Your task to perform on an android device: see creations saved in the google photos Image 0: 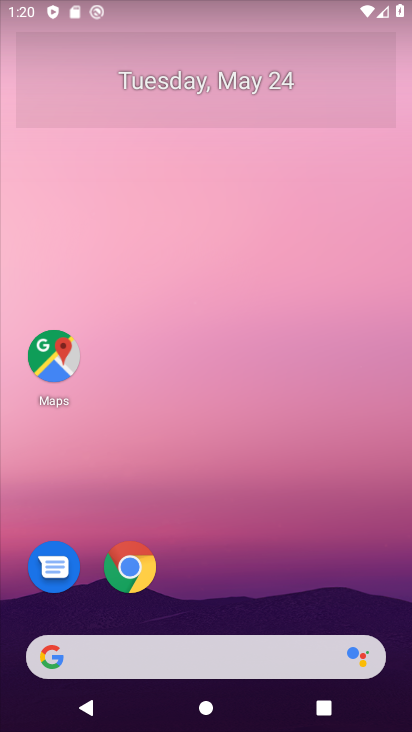
Step 0: drag from (201, 587) to (269, 118)
Your task to perform on an android device: see creations saved in the google photos Image 1: 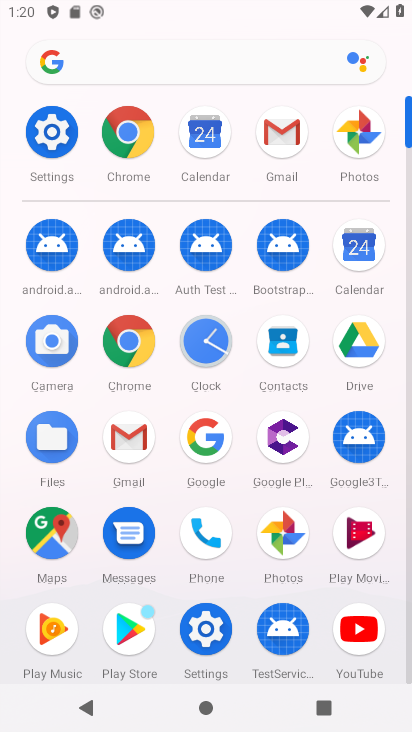
Step 1: click (280, 548)
Your task to perform on an android device: see creations saved in the google photos Image 2: 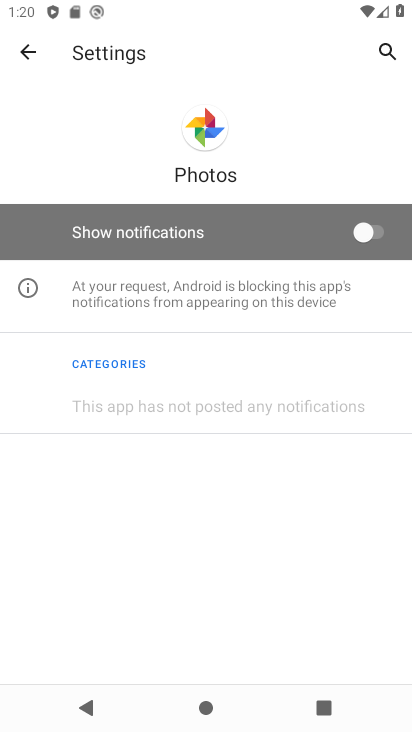
Step 2: click (24, 52)
Your task to perform on an android device: see creations saved in the google photos Image 3: 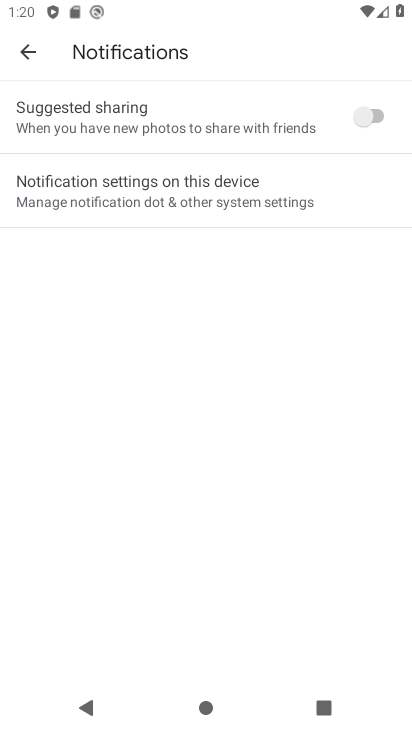
Step 3: click (32, 54)
Your task to perform on an android device: see creations saved in the google photos Image 4: 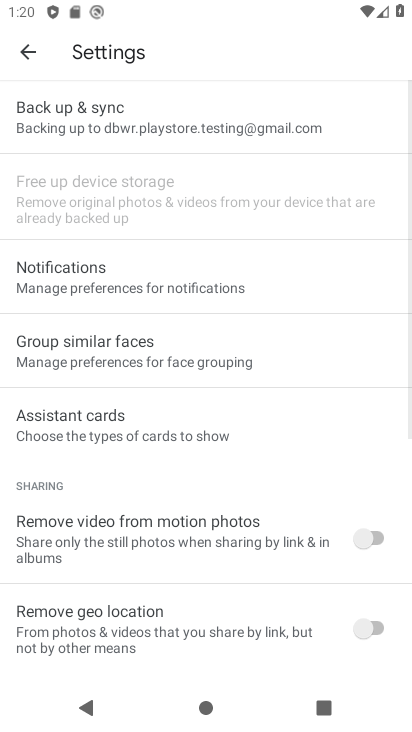
Step 4: click (29, 29)
Your task to perform on an android device: see creations saved in the google photos Image 5: 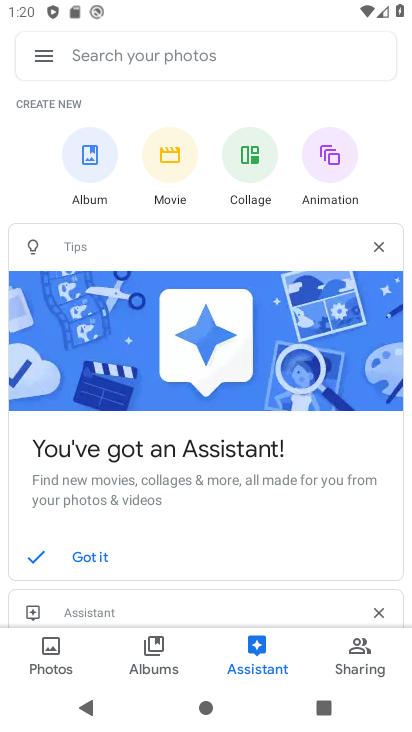
Step 5: click (182, 48)
Your task to perform on an android device: see creations saved in the google photos Image 6: 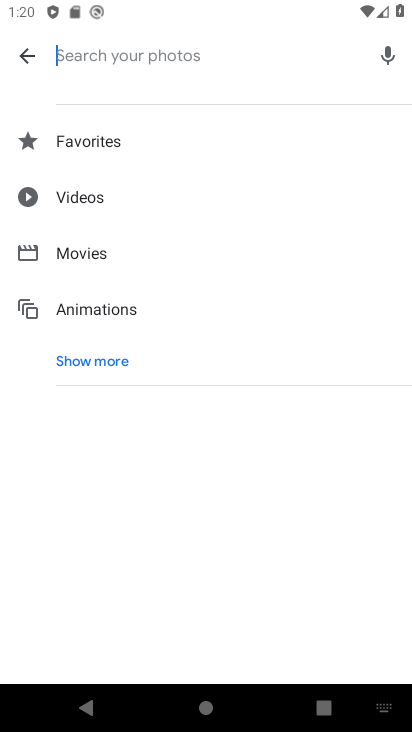
Step 6: type "creatons"
Your task to perform on an android device: see creations saved in the google photos Image 7: 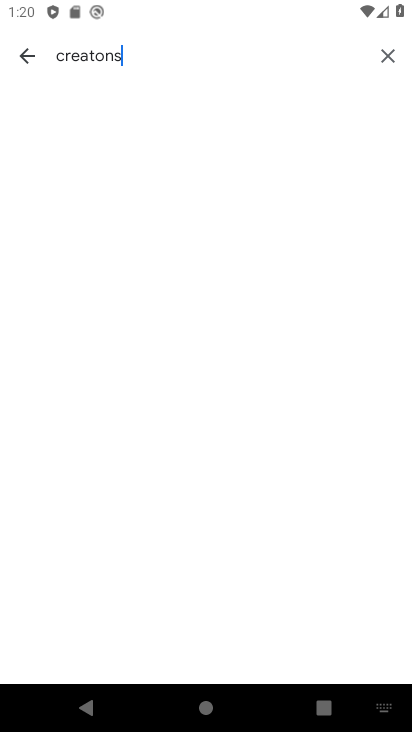
Step 7: click (144, 137)
Your task to perform on an android device: see creations saved in the google photos Image 8: 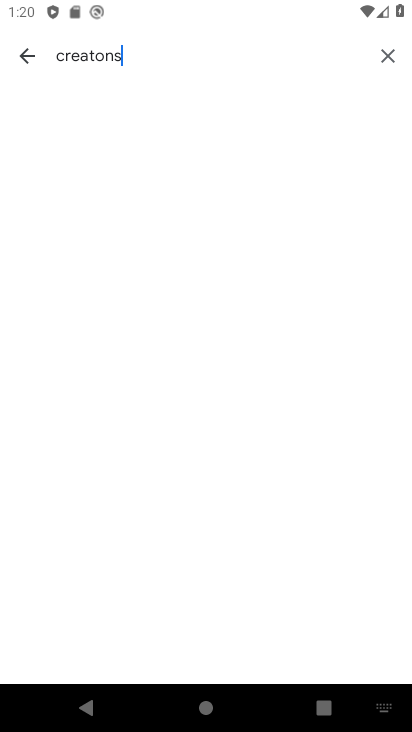
Step 8: click (145, 132)
Your task to perform on an android device: see creations saved in the google photos Image 9: 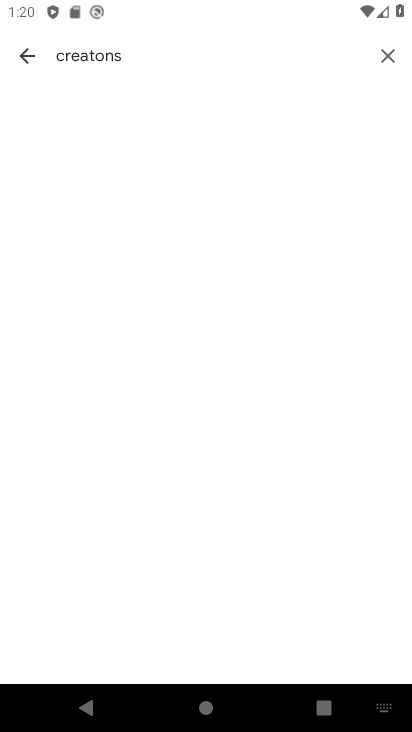
Step 9: click (92, 45)
Your task to perform on an android device: see creations saved in the google photos Image 10: 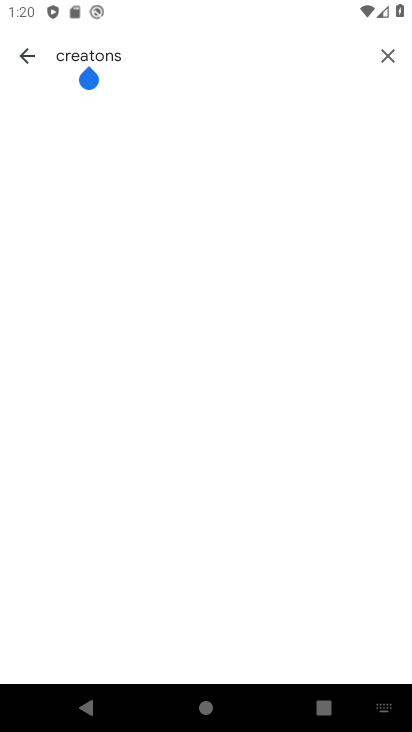
Step 10: click (95, 54)
Your task to perform on an android device: see creations saved in the google photos Image 11: 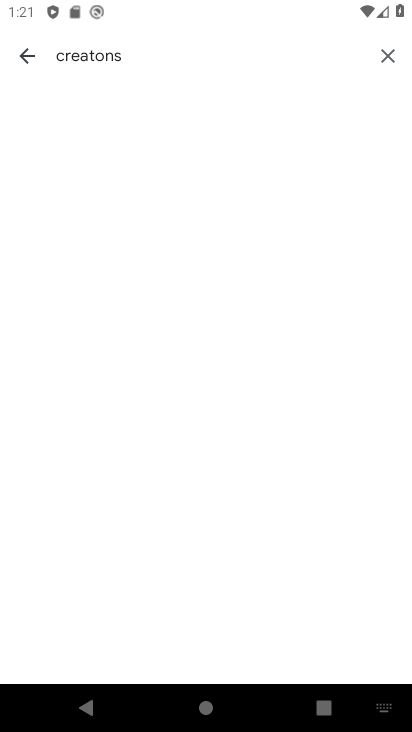
Step 11: type "i"
Your task to perform on an android device: see creations saved in the google photos Image 12: 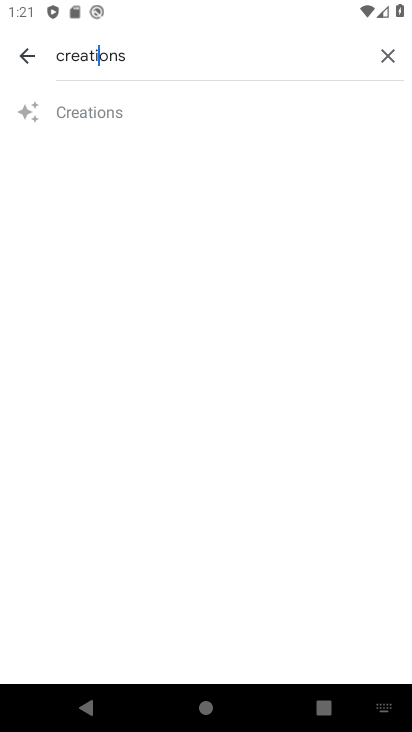
Step 12: click (84, 113)
Your task to perform on an android device: see creations saved in the google photos Image 13: 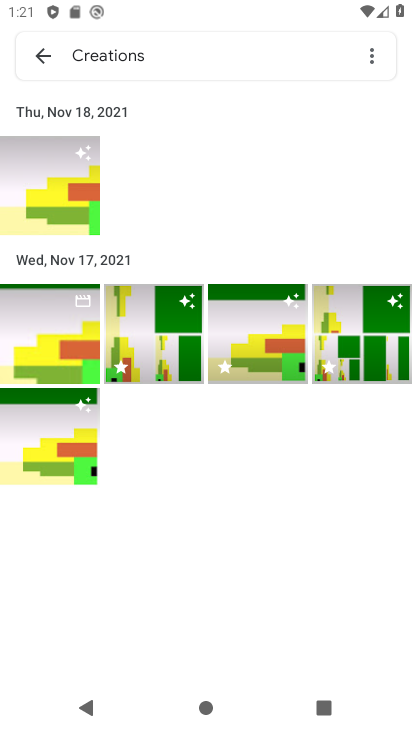
Step 13: task complete